Your task to perform on an android device: Search for Italian restaurants on Maps Image 0: 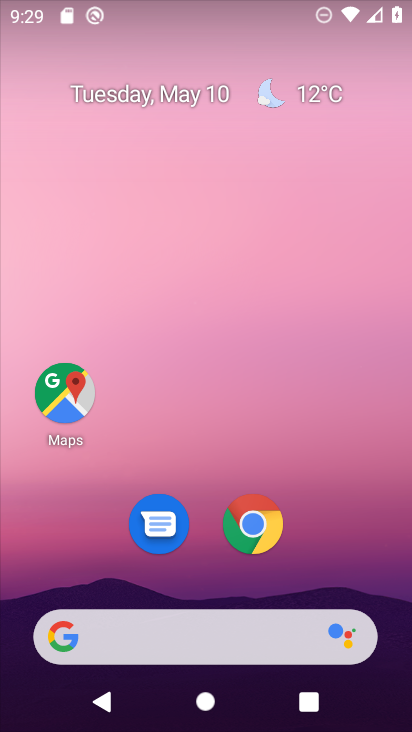
Step 0: click (54, 400)
Your task to perform on an android device: Search for Italian restaurants on Maps Image 1: 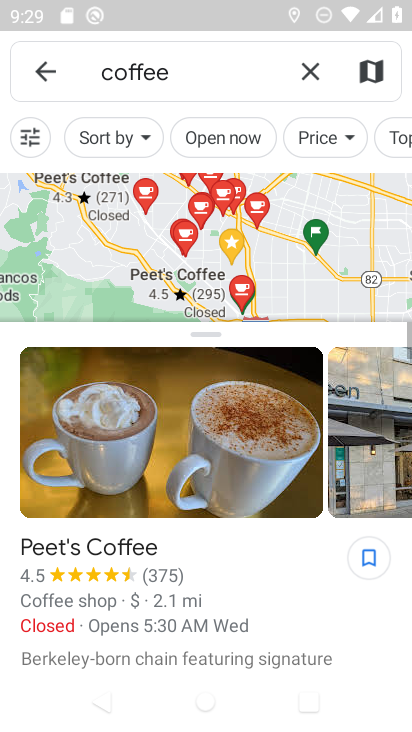
Step 1: click (314, 69)
Your task to perform on an android device: Search for Italian restaurants on Maps Image 2: 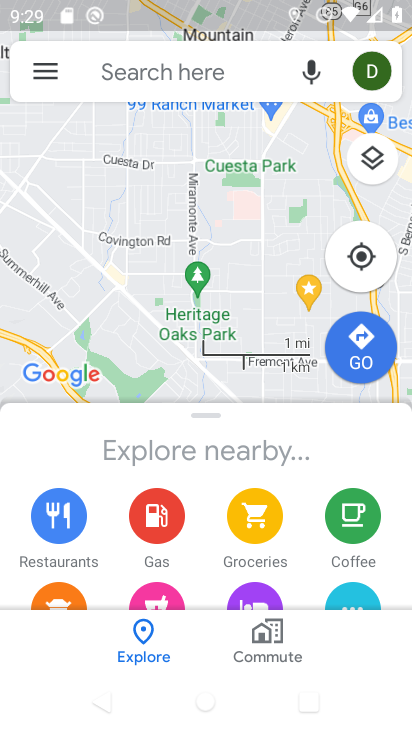
Step 2: click (198, 69)
Your task to perform on an android device: Search for Italian restaurants on Maps Image 3: 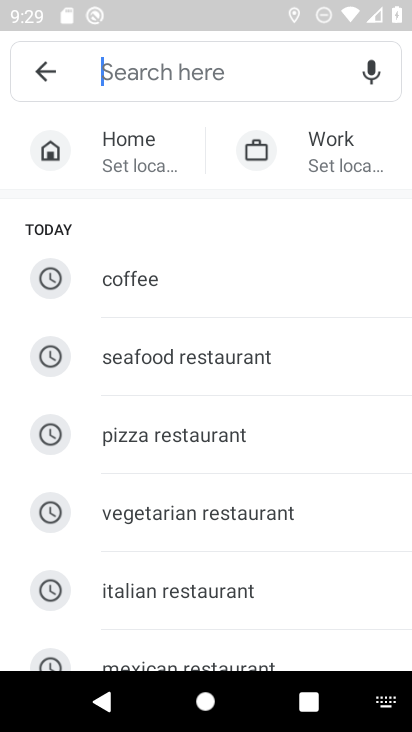
Step 3: click (141, 572)
Your task to perform on an android device: Search for Italian restaurants on Maps Image 4: 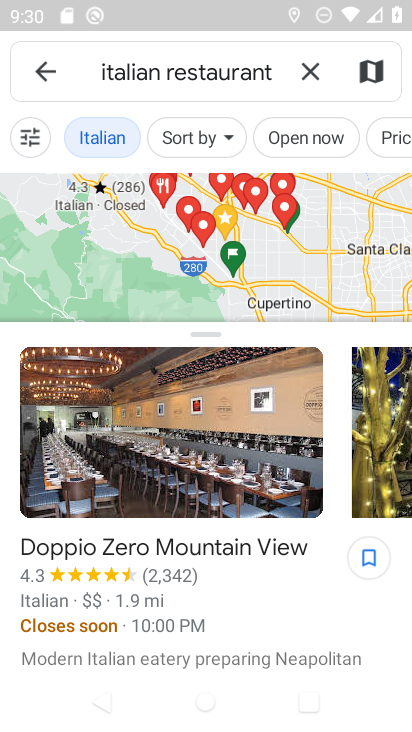
Step 4: task complete